Your task to perform on an android device: Install the Amazon app Image 0: 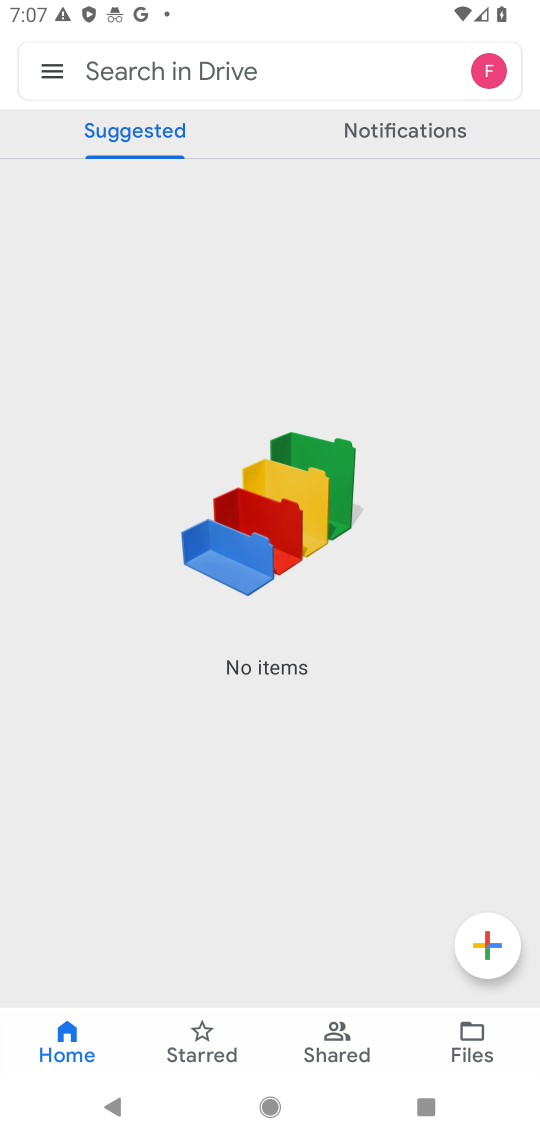
Step 0: press home button
Your task to perform on an android device: Install the Amazon app Image 1: 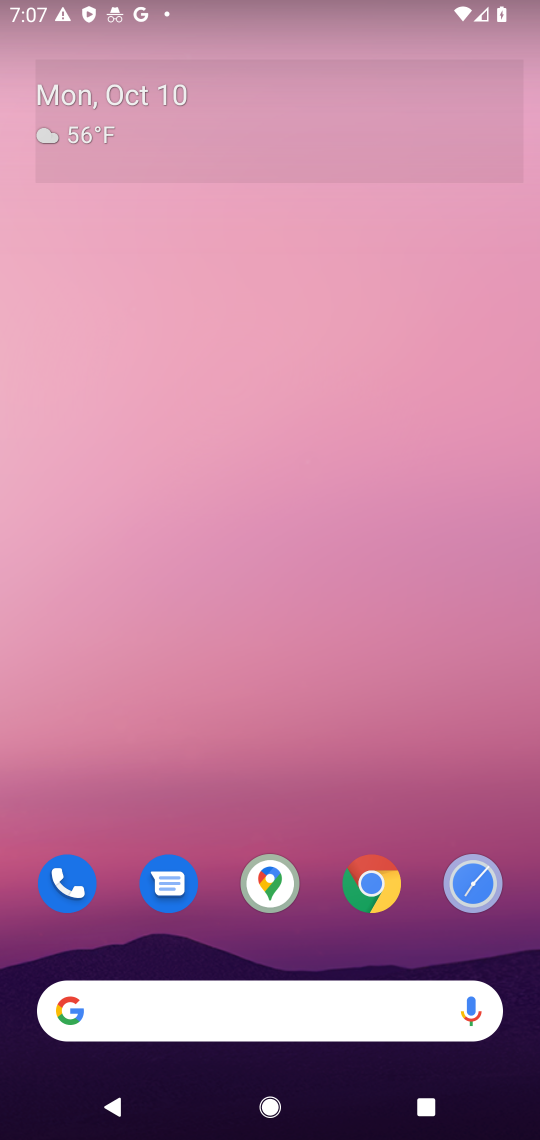
Step 1: drag from (409, 1099) to (423, 442)
Your task to perform on an android device: Install the Amazon app Image 2: 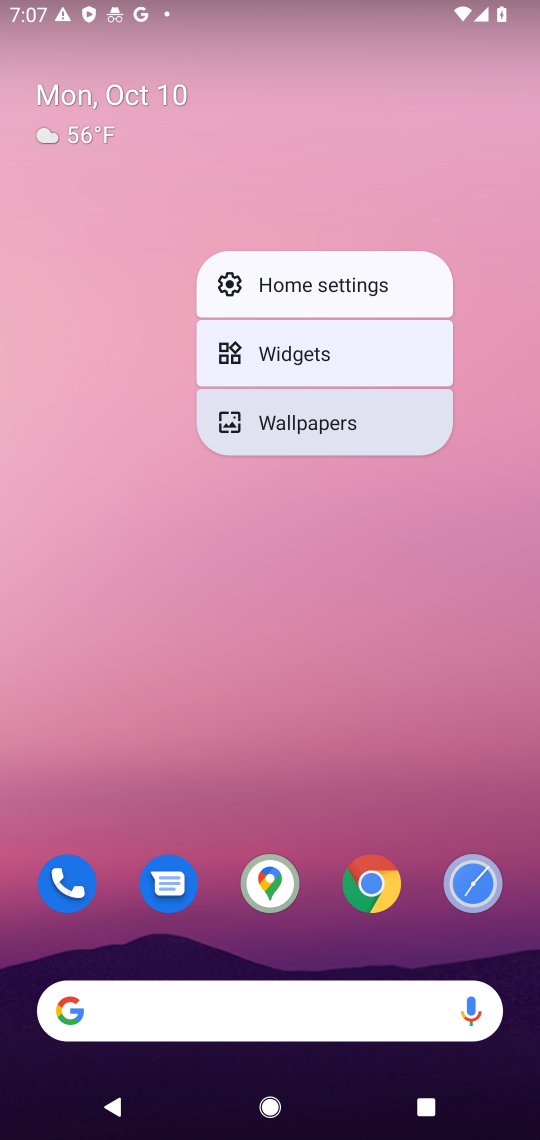
Step 2: click (351, 758)
Your task to perform on an android device: Install the Amazon app Image 3: 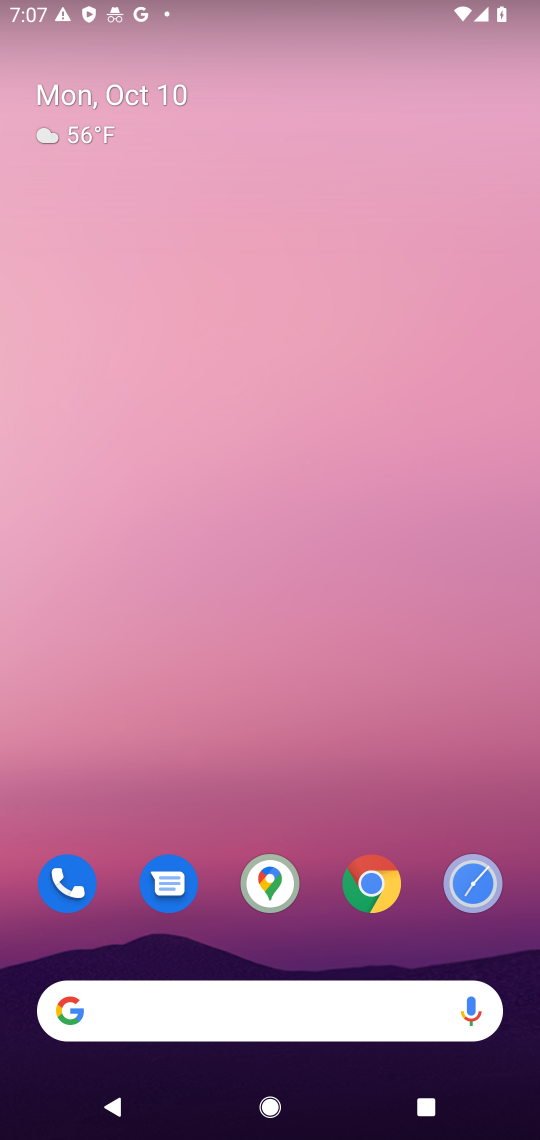
Step 3: drag from (318, 887) to (315, 9)
Your task to perform on an android device: Install the Amazon app Image 4: 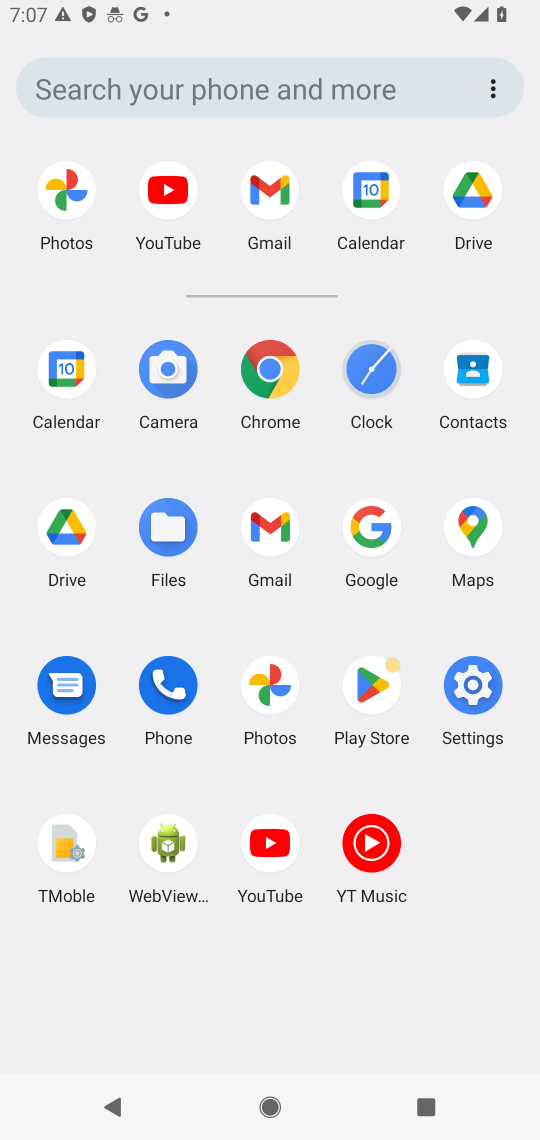
Step 4: click (385, 699)
Your task to perform on an android device: Install the Amazon app Image 5: 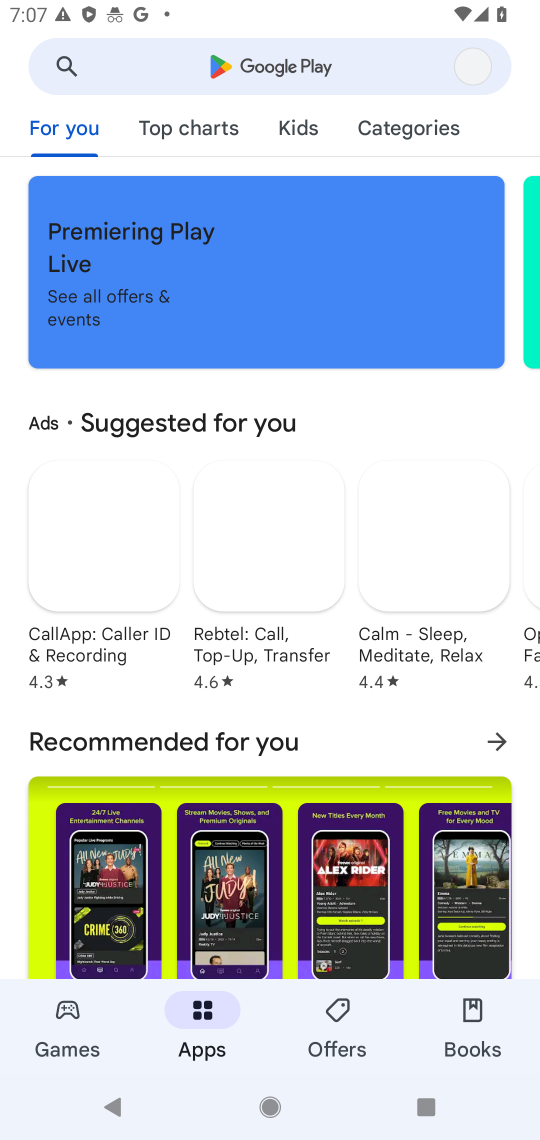
Step 5: click (319, 74)
Your task to perform on an android device: Install the Amazon app Image 6: 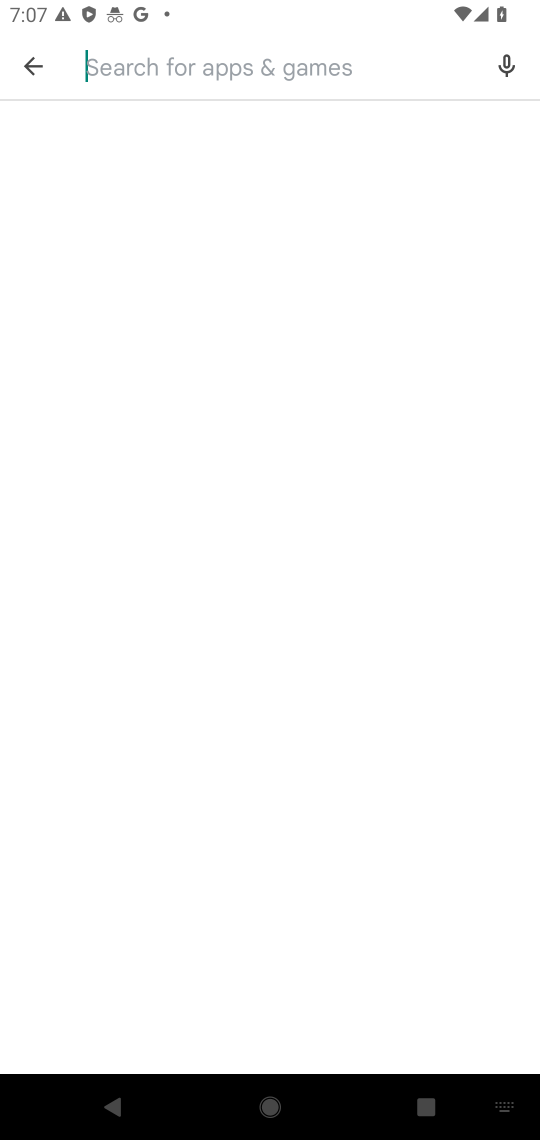
Step 6: type "amzon"
Your task to perform on an android device: Install the Amazon app Image 7: 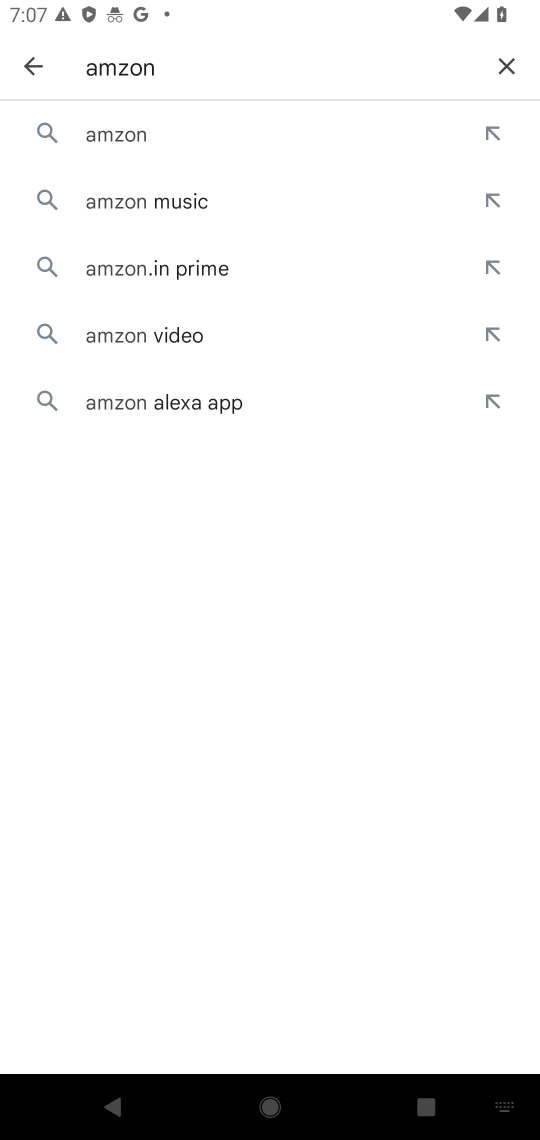
Step 7: click (237, 140)
Your task to perform on an android device: Install the Amazon app Image 8: 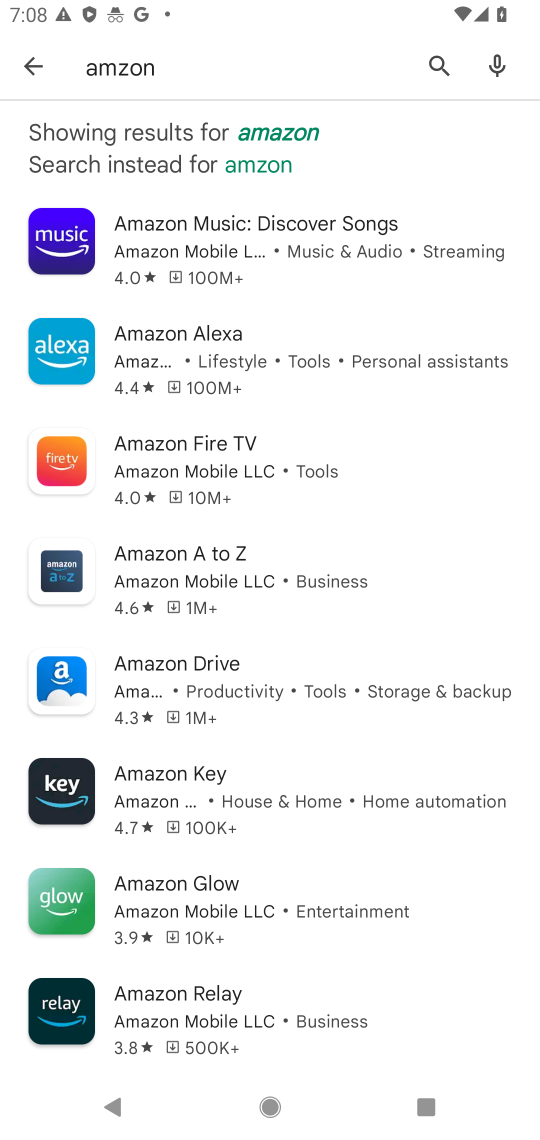
Step 8: click (444, 65)
Your task to perform on an android device: Install the Amazon app Image 9: 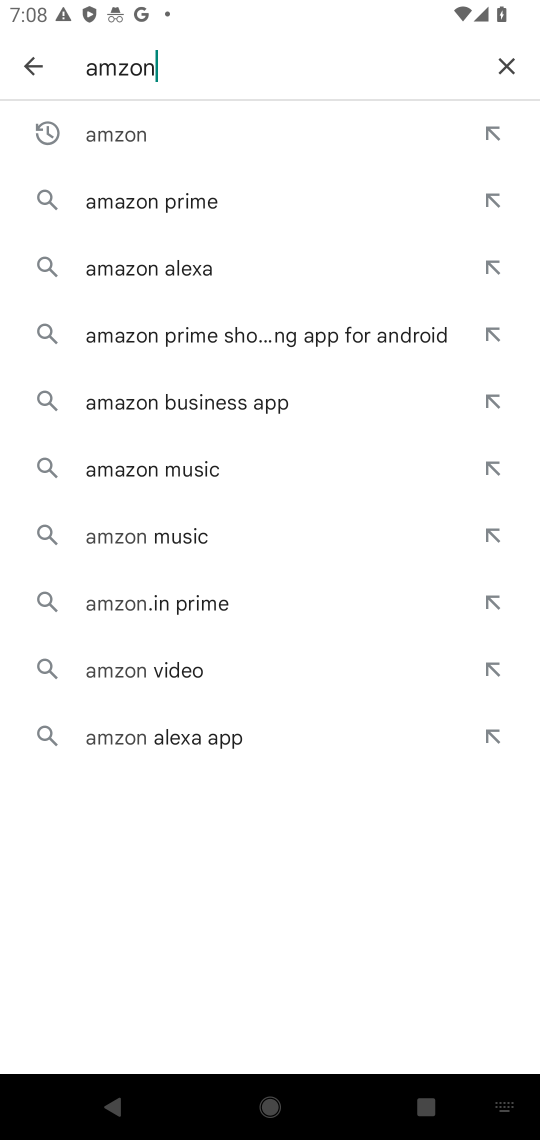
Step 9: type "  aap"
Your task to perform on an android device: Install the Amazon app Image 10: 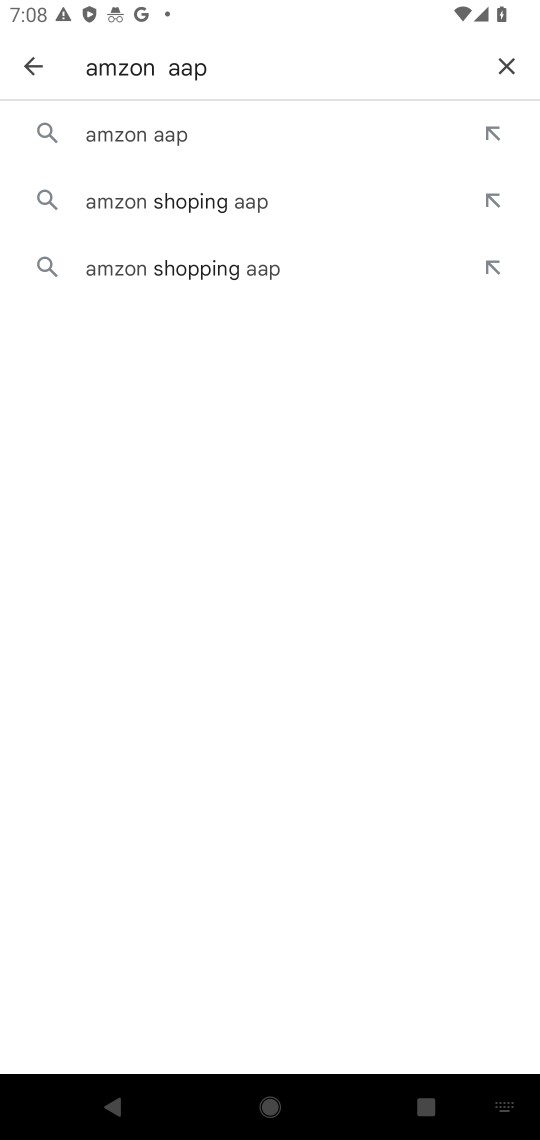
Step 10: click (357, 182)
Your task to perform on an android device: Install the Amazon app Image 11: 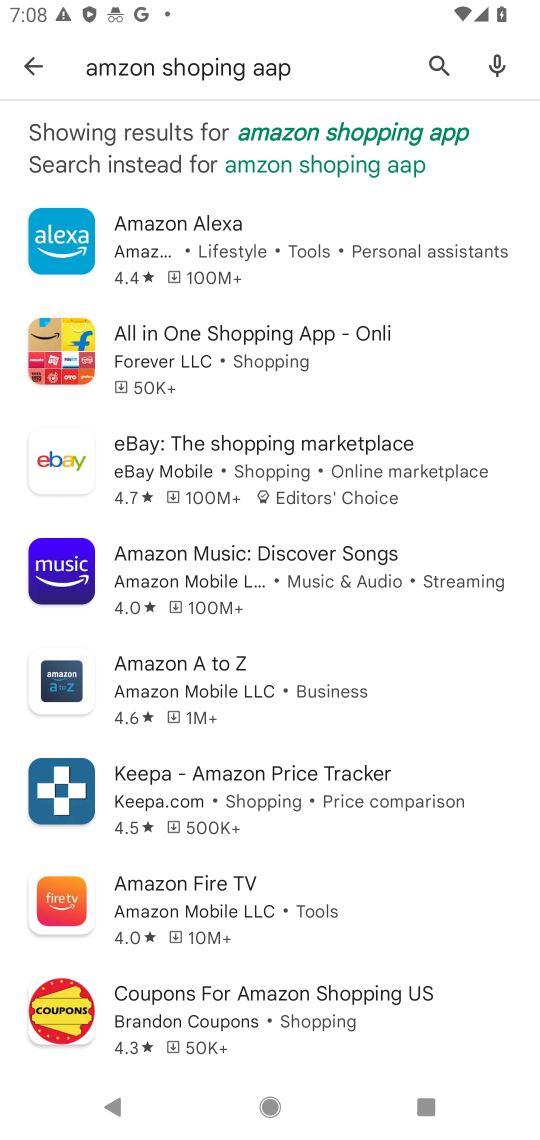
Step 11: task complete